Your task to perform on an android device: Search for hotels in Los Angeles Image 0: 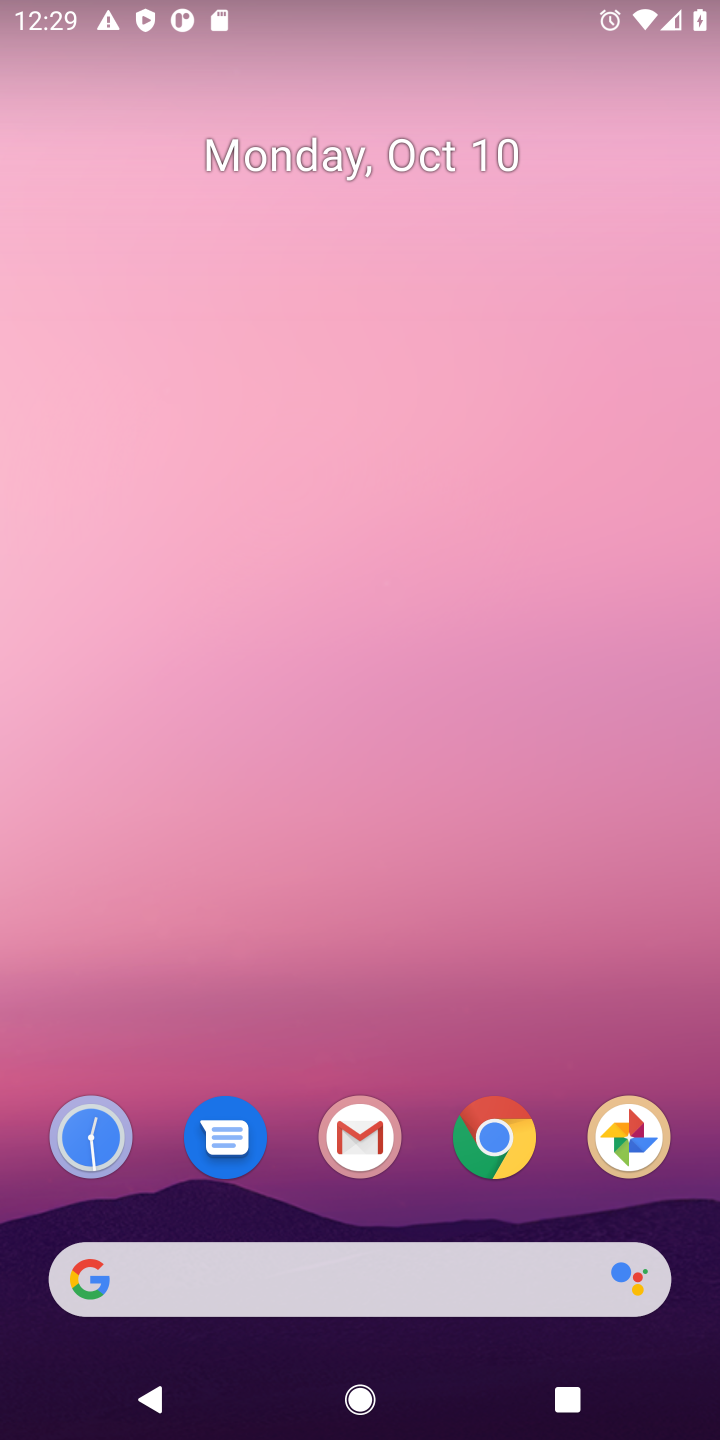
Step 0: drag from (519, 922) to (376, 38)
Your task to perform on an android device: Search for hotels in Los Angeles Image 1: 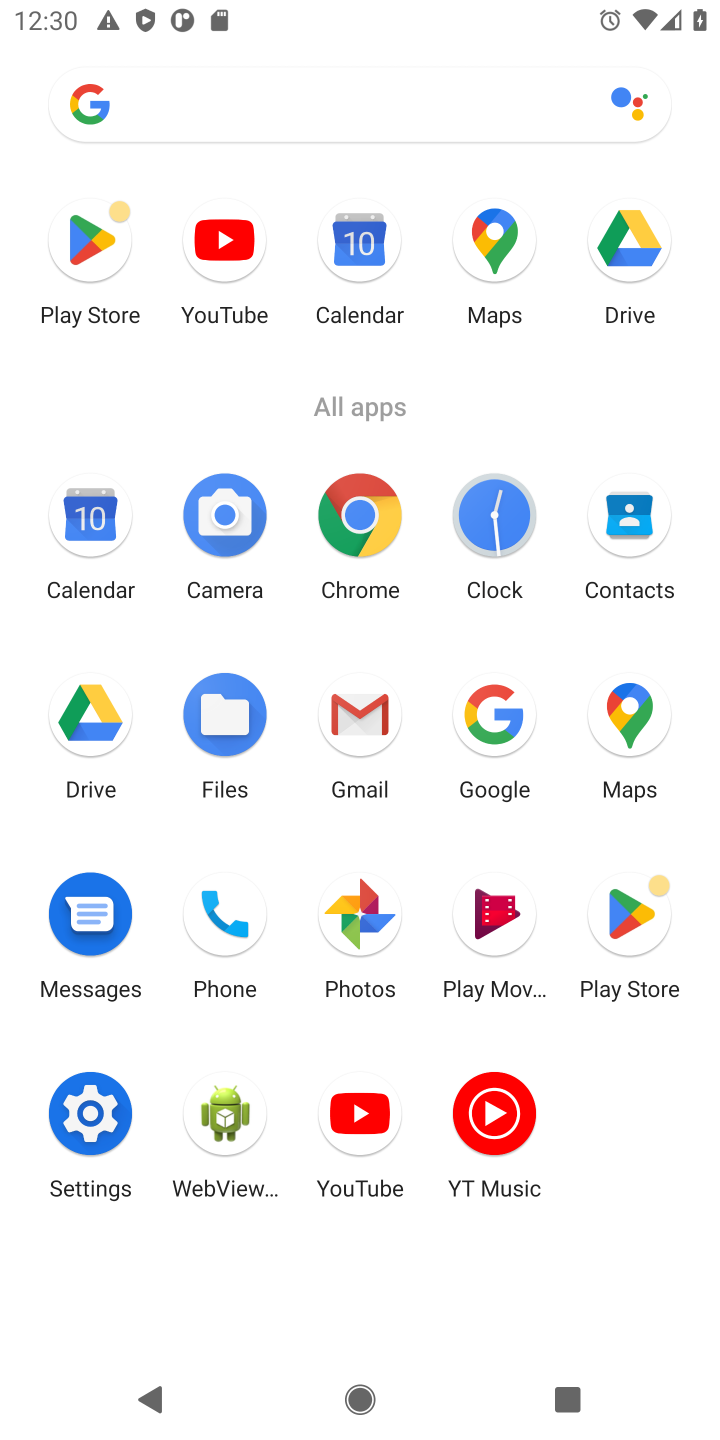
Step 1: click (366, 511)
Your task to perform on an android device: Search for hotels in Los Angeles Image 2: 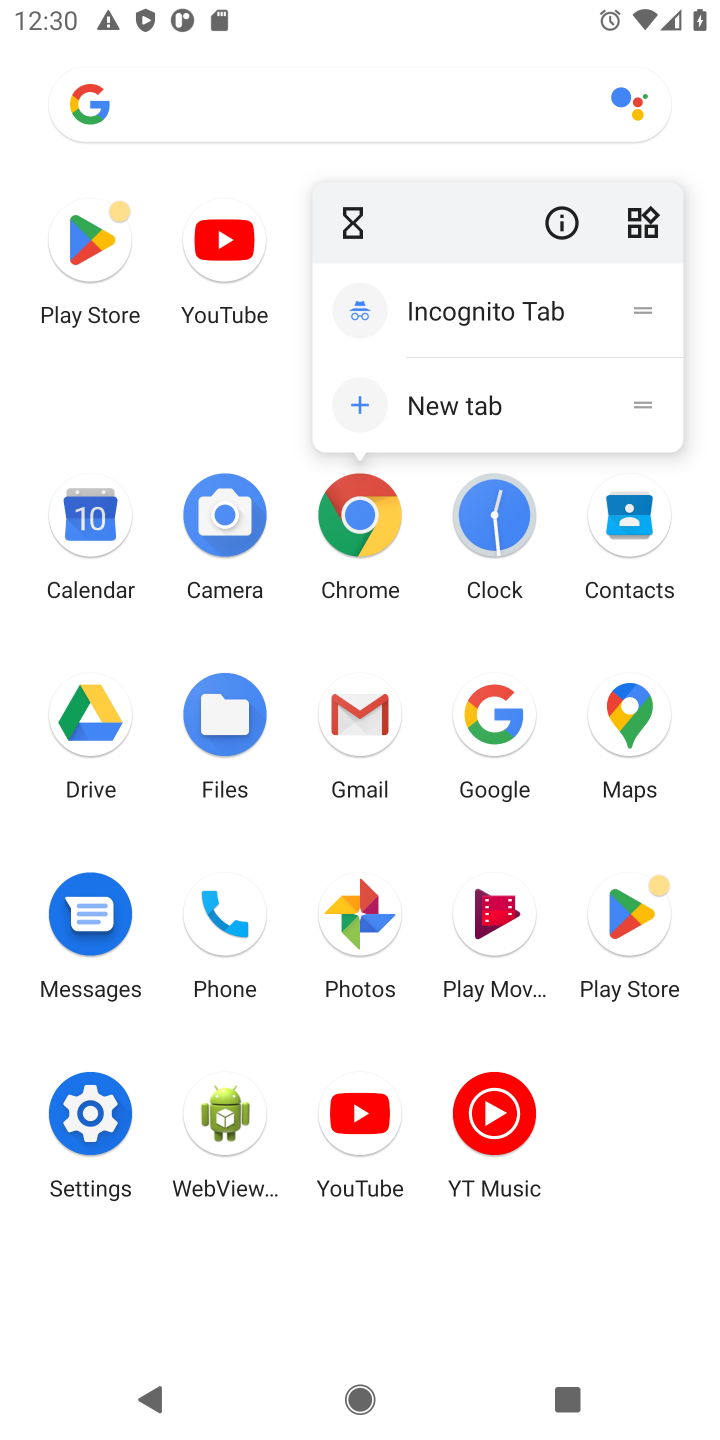
Step 2: click (355, 525)
Your task to perform on an android device: Search for hotels in Los Angeles Image 3: 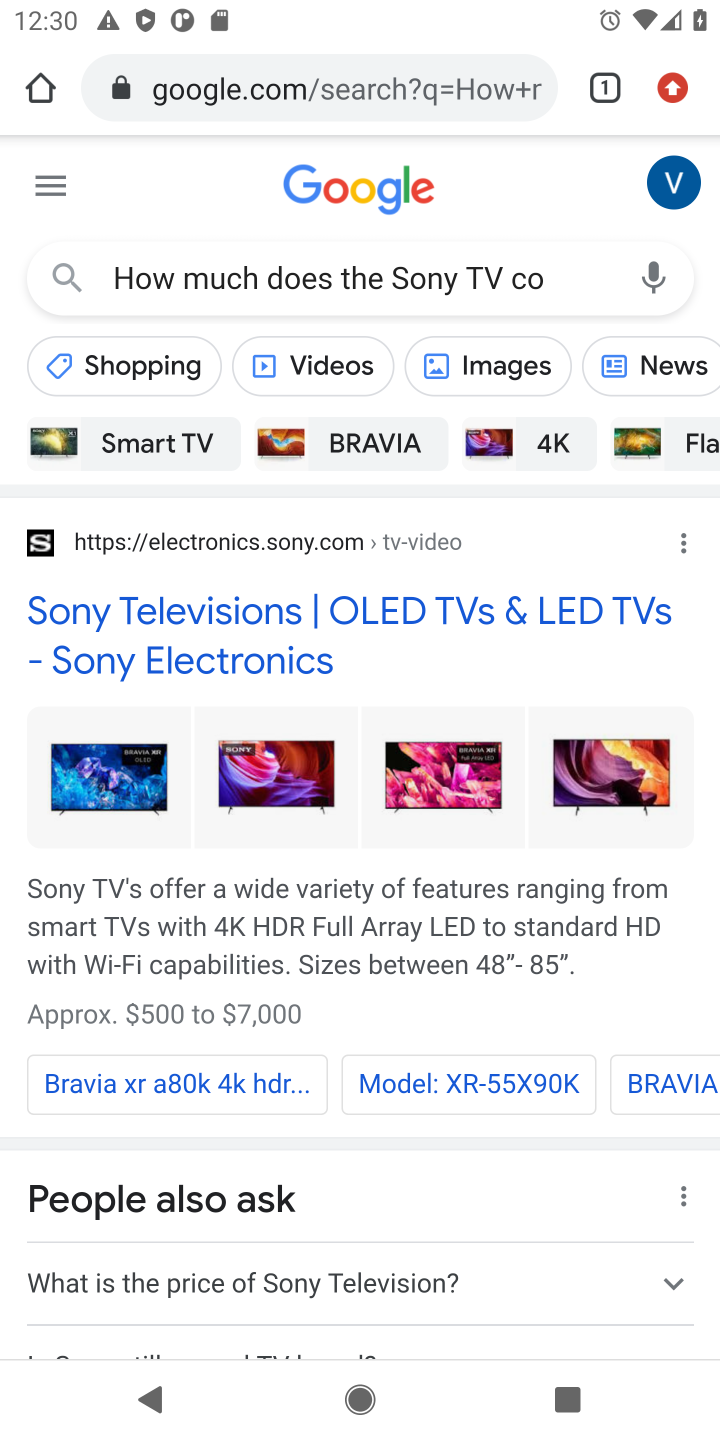
Step 3: click (228, 100)
Your task to perform on an android device: Search for hotels in Los Angeles Image 4: 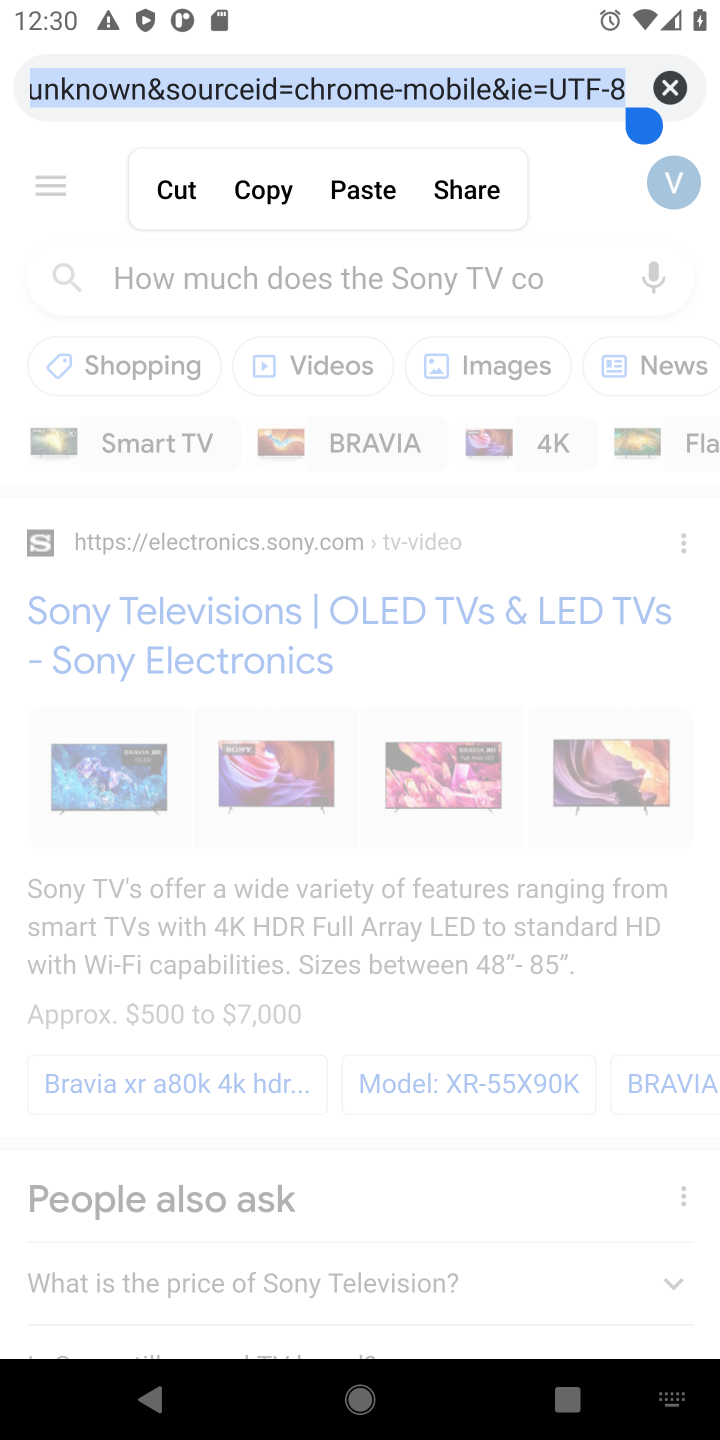
Step 4: click (680, 94)
Your task to perform on an android device: Search for hotels in Los Angeles Image 5: 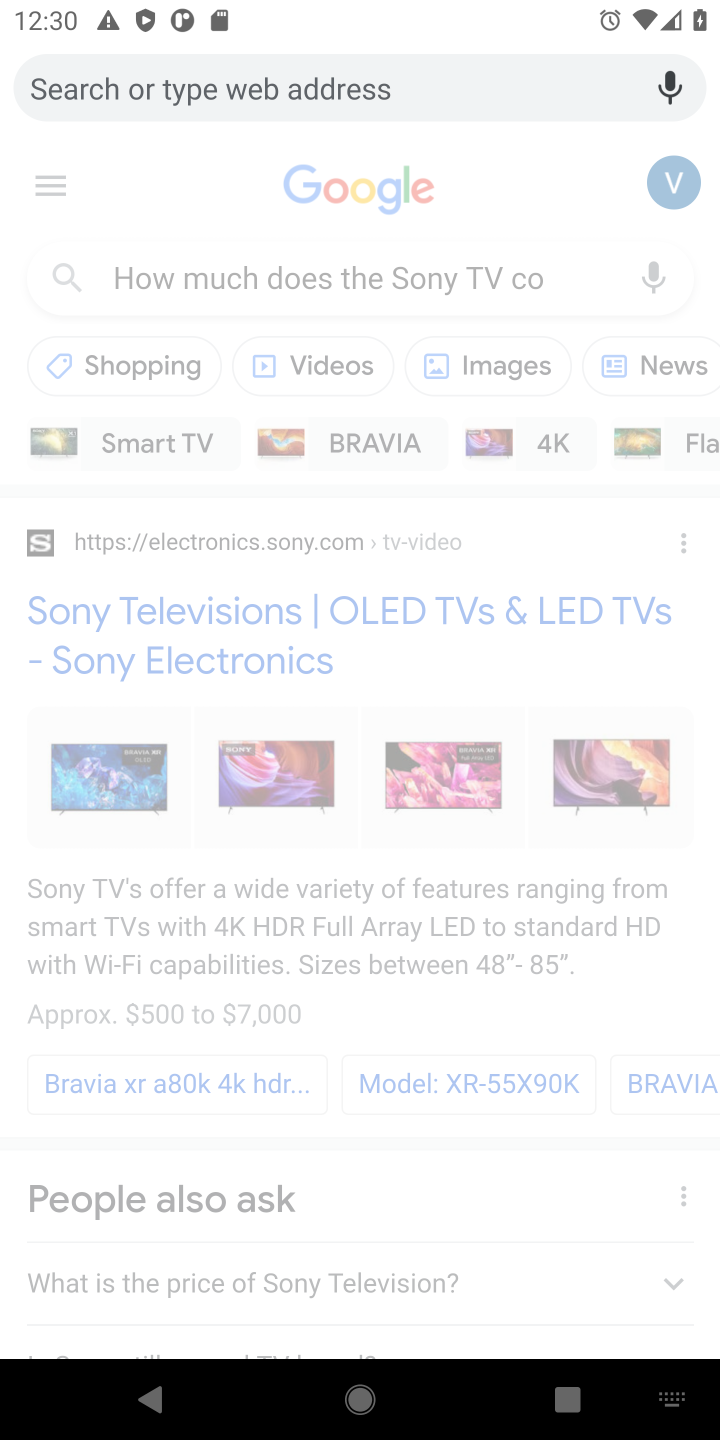
Step 5: type "Search for hotels in Los Angeles"
Your task to perform on an android device: Search for hotels in Los Angeles Image 6: 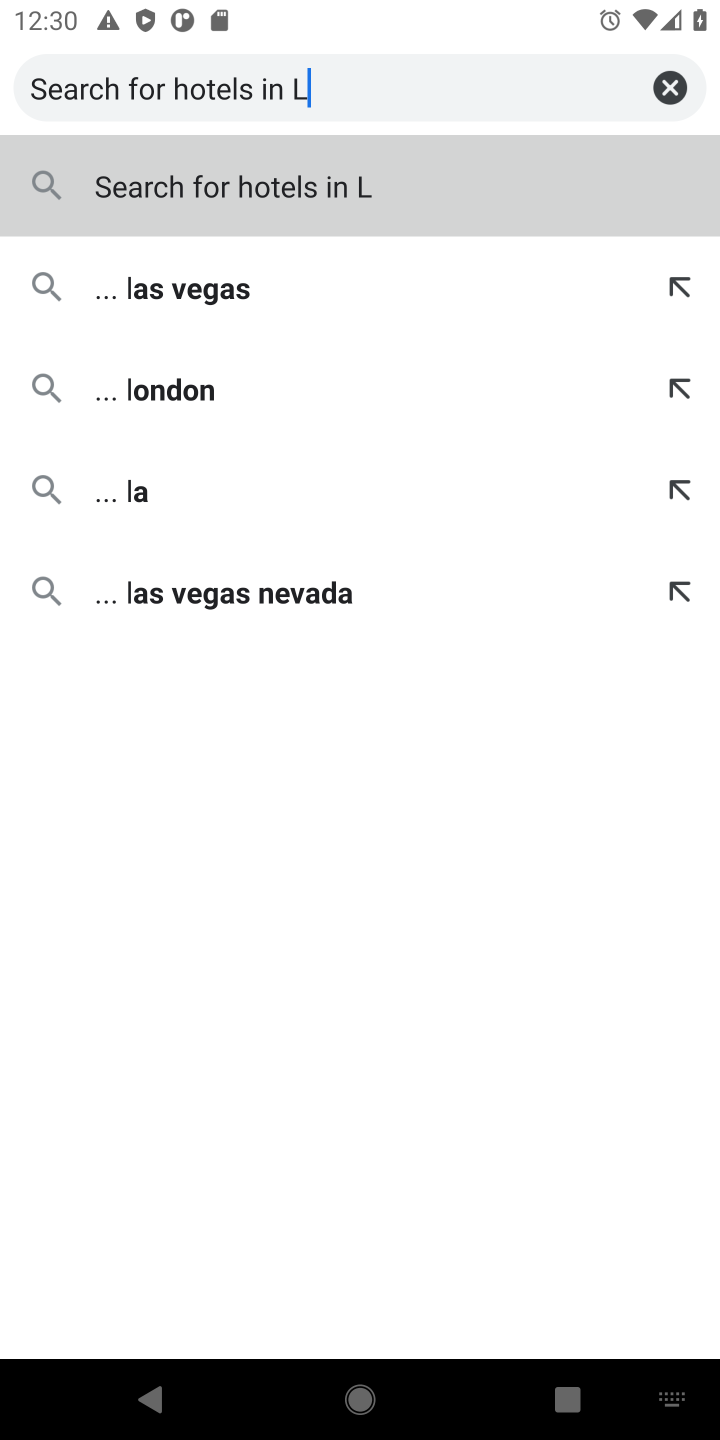
Step 6: click (347, 186)
Your task to perform on an android device: Search for hotels in Los Angeles Image 7: 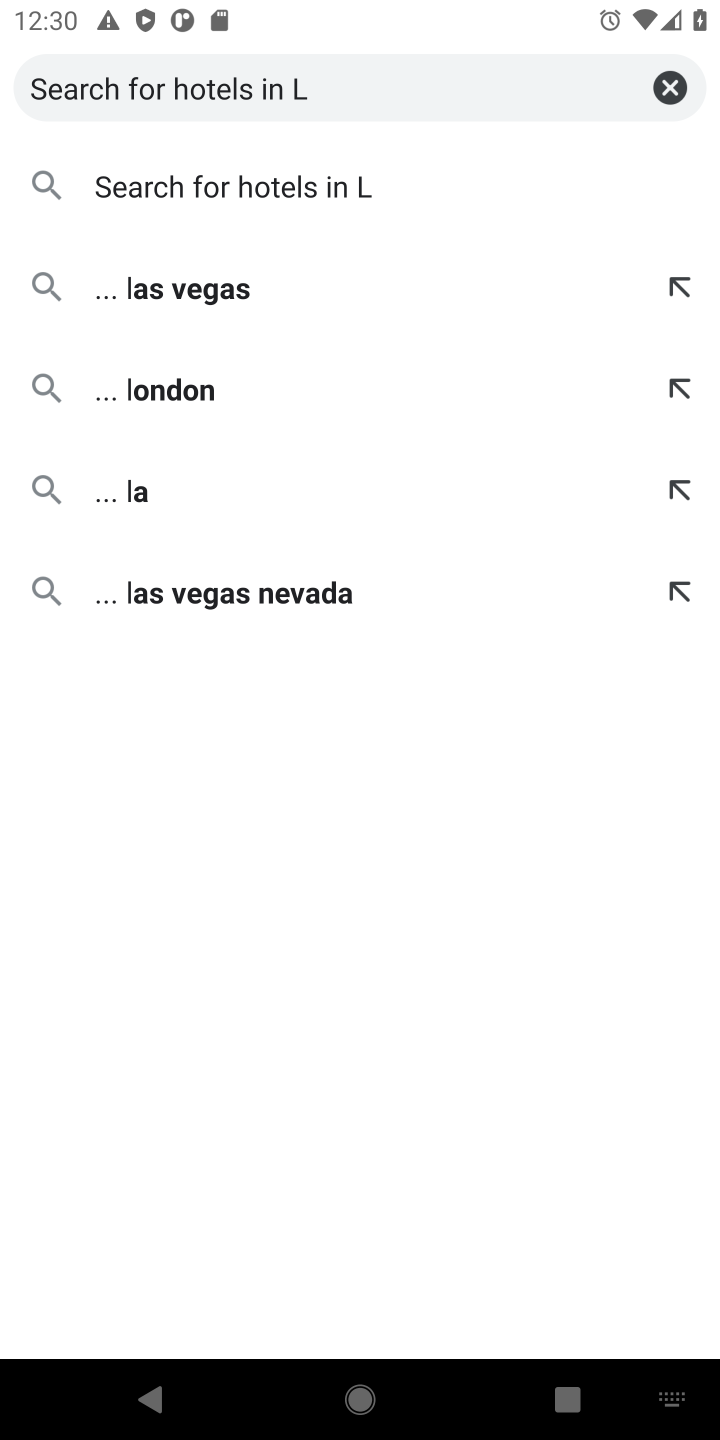
Step 7: click (347, 186)
Your task to perform on an android device: Search for hotels in Los Angeles Image 8: 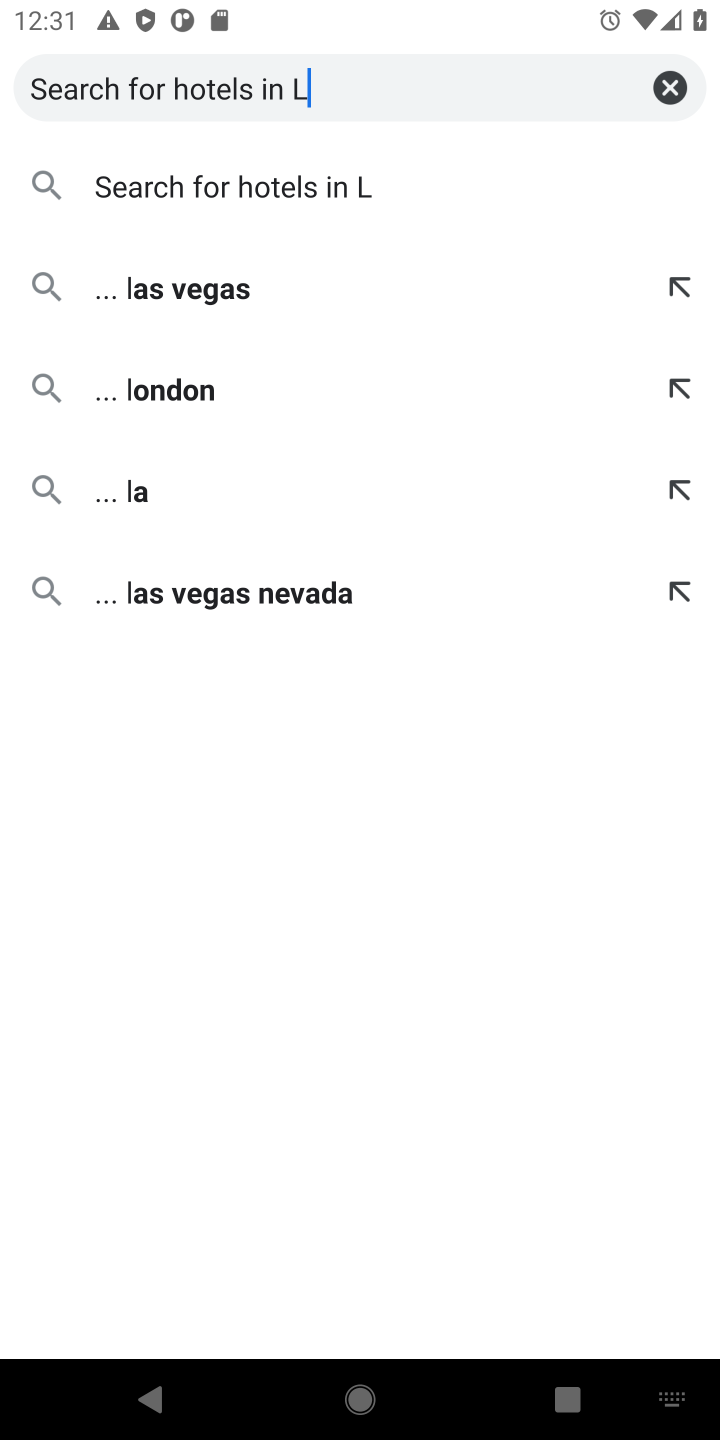
Step 8: click (258, 174)
Your task to perform on an android device: Search for hotels in Los Angeles Image 9: 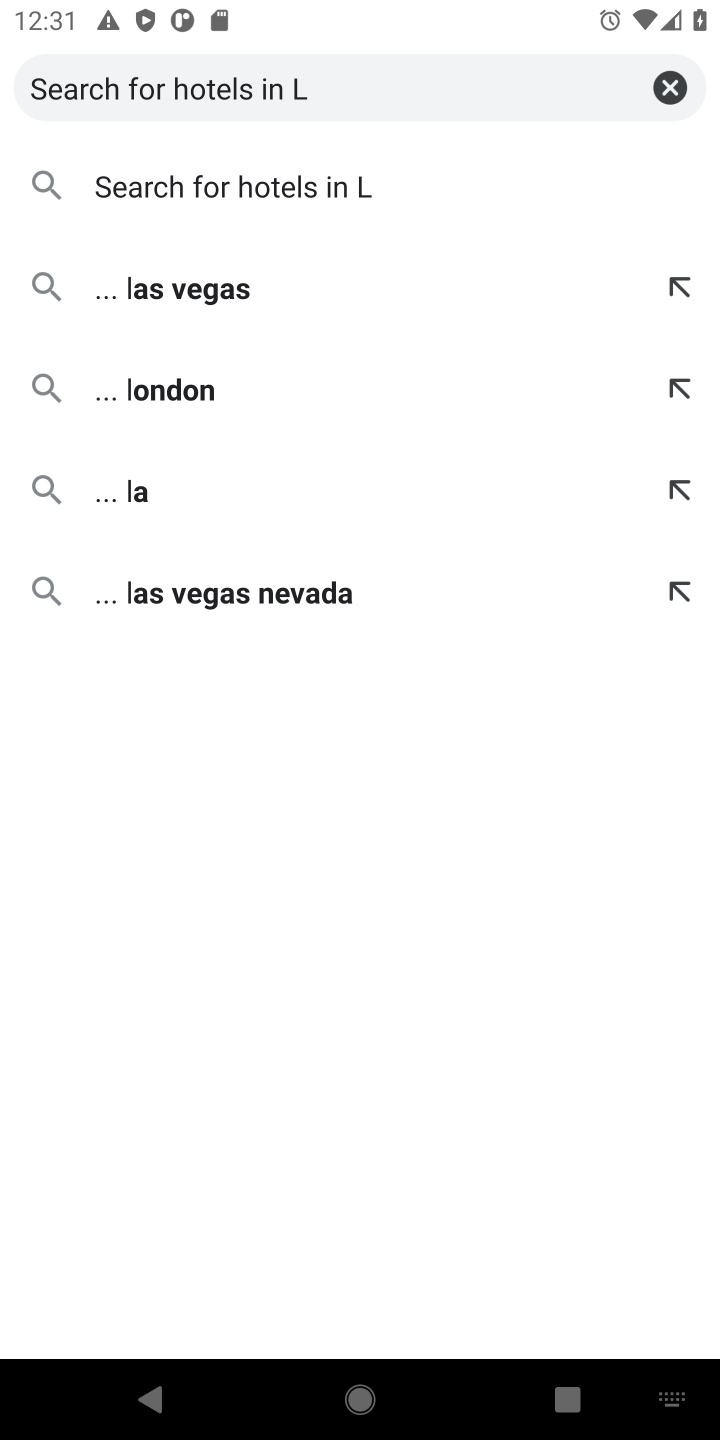
Step 9: click (244, 180)
Your task to perform on an android device: Search for hotels in Los Angeles Image 10: 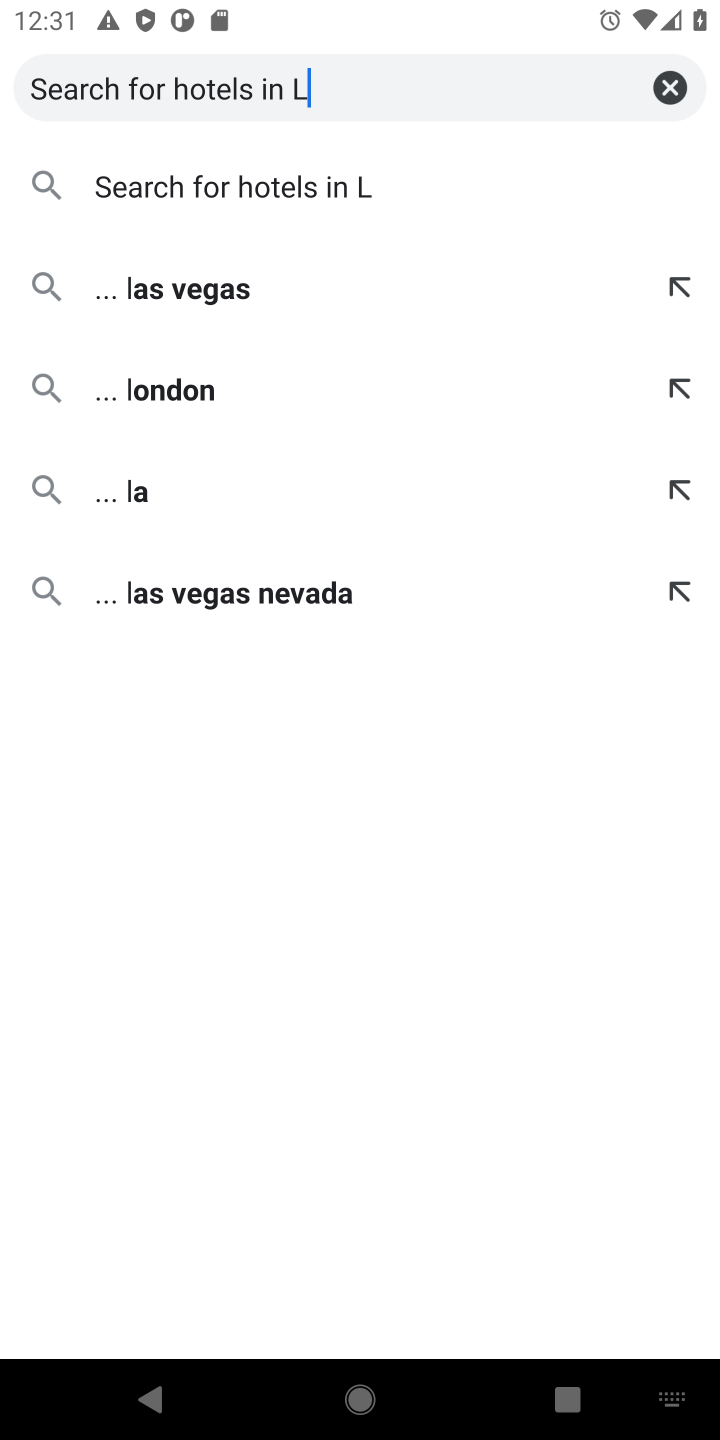
Step 10: click (290, 183)
Your task to perform on an android device: Search for hotels in Los Angeles Image 11: 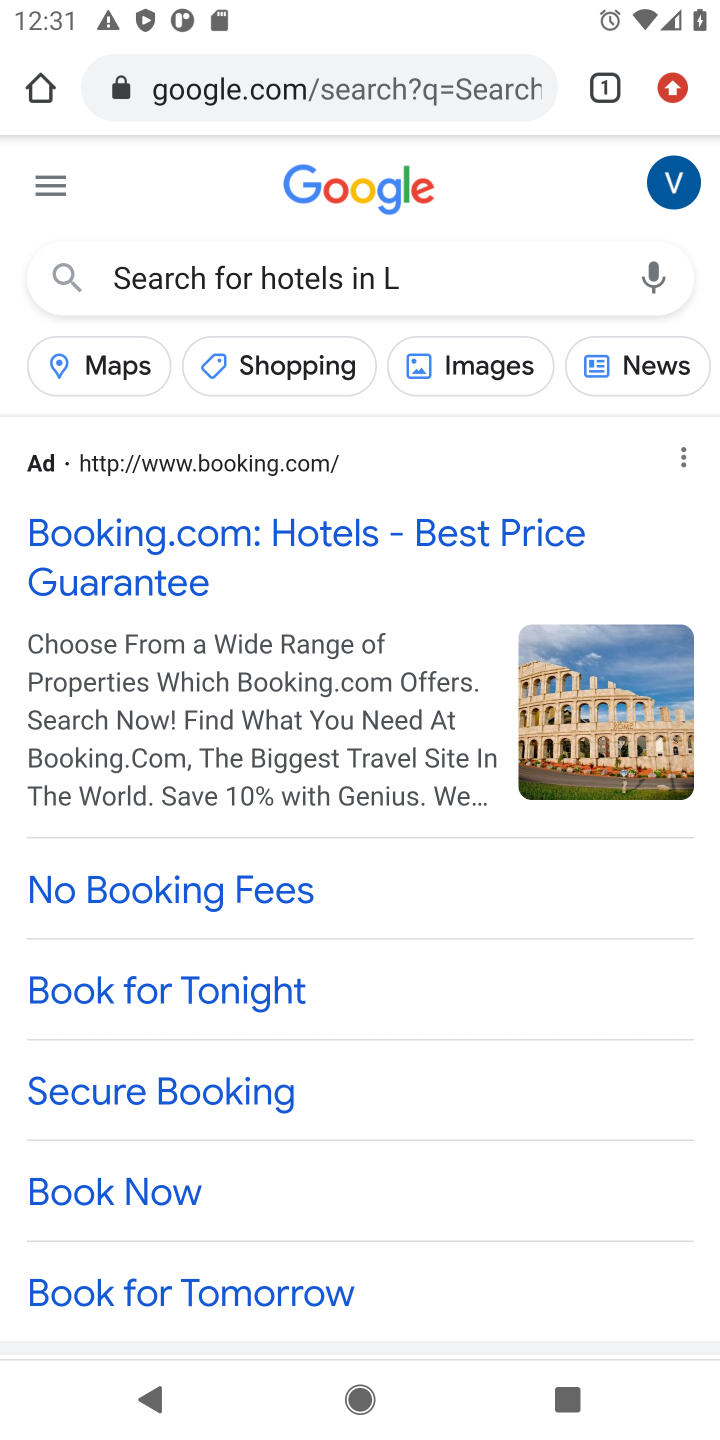
Step 11: task complete